Your task to perform on an android device: Set the phone to "Do not disturb". Image 0: 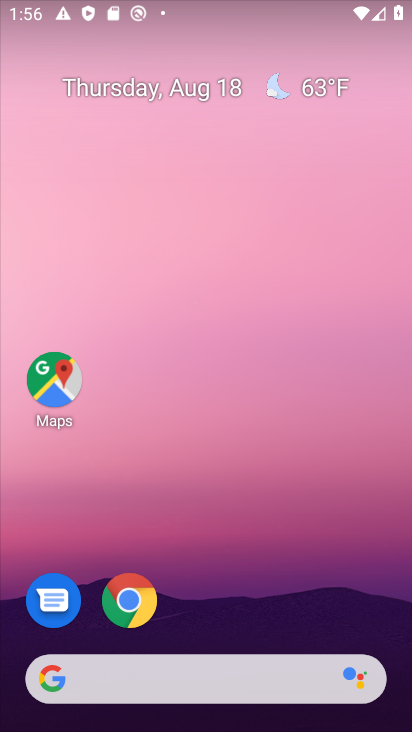
Step 0: drag from (228, 614) to (204, 79)
Your task to perform on an android device: Set the phone to "Do not disturb". Image 1: 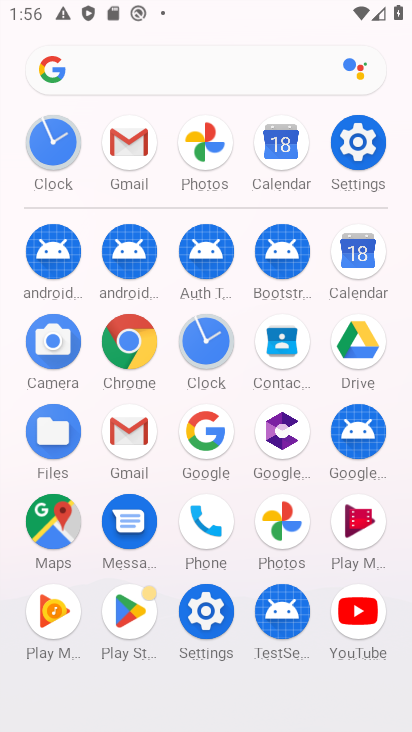
Step 1: click (362, 141)
Your task to perform on an android device: Set the phone to "Do not disturb". Image 2: 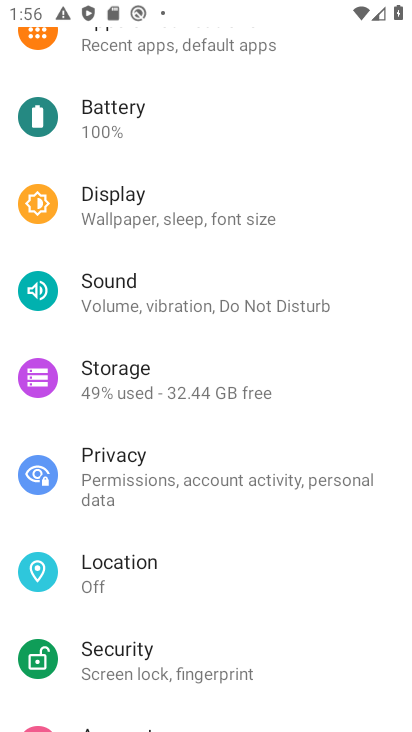
Step 2: click (129, 285)
Your task to perform on an android device: Set the phone to "Do not disturb". Image 3: 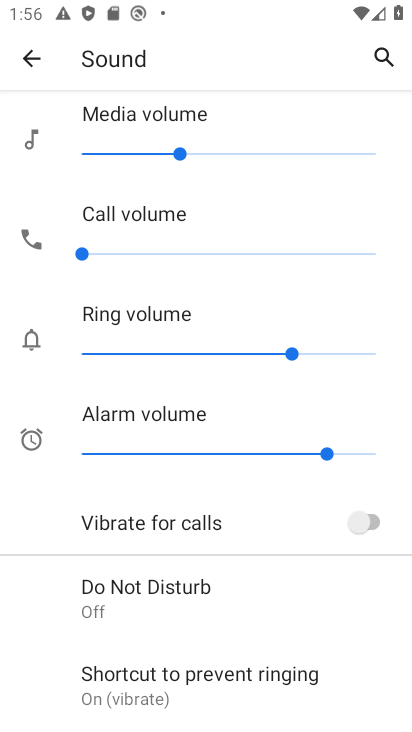
Step 3: click (126, 580)
Your task to perform on an android device: Set the phone to "Do not disturb". Image 4: 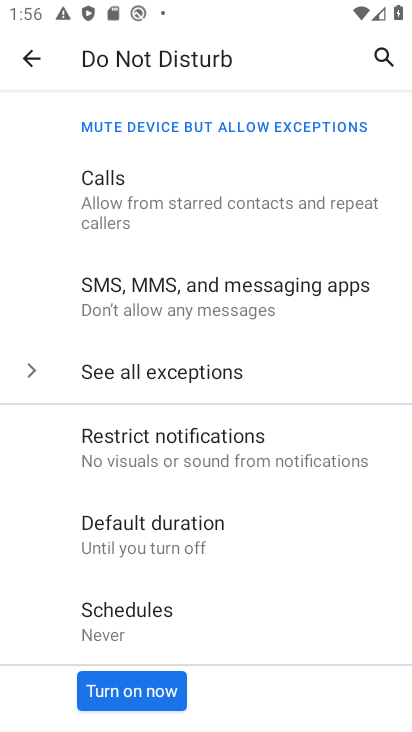
Step 4: click (126, 701)
Your task to perform on an android device: Set the phone to "Do not disturb". Image 5: 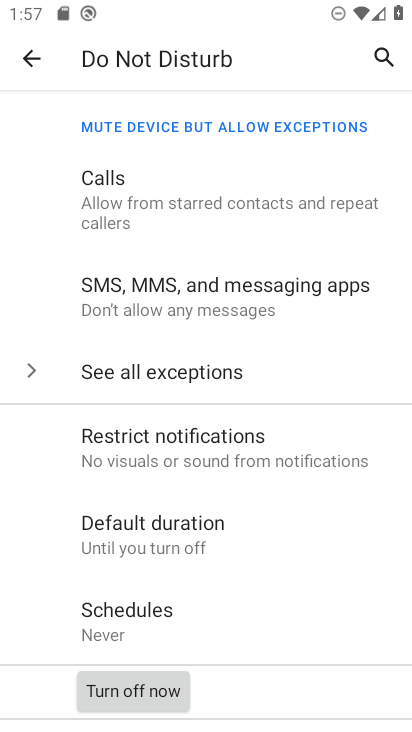
Step 5: task complete